Your task to perform on an android device: turn off notifications settings in the gmail app Image 0: 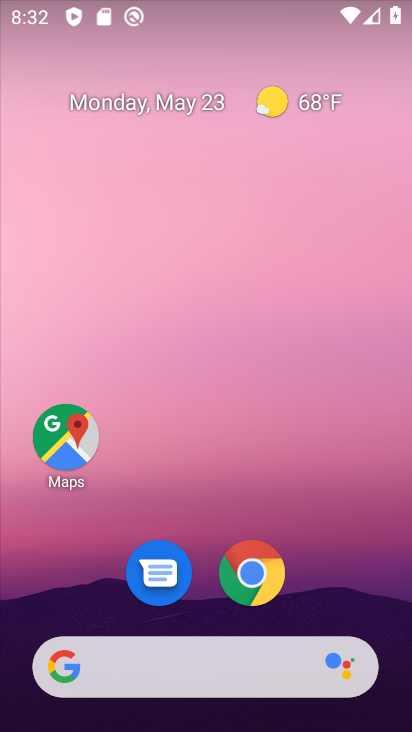
Step 0: drag from (207, 608) to (274, 165)
Your task to perform on an android device: turn off notifications settings in the gmail app Image 1: 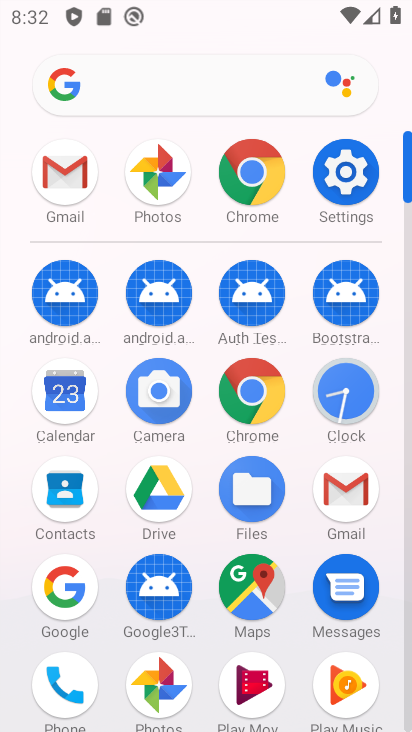
Step 1: click (341, 483)
Your task to perform on an android device: turn off notifications settings in the gmail app Image 2: 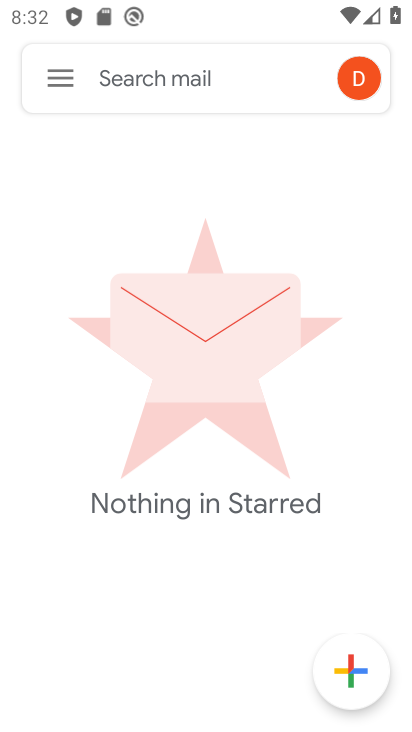
Step 2: click (60, 71)
Your task to perform on an android device: turn off notifications settings in the gmail app Image 3: 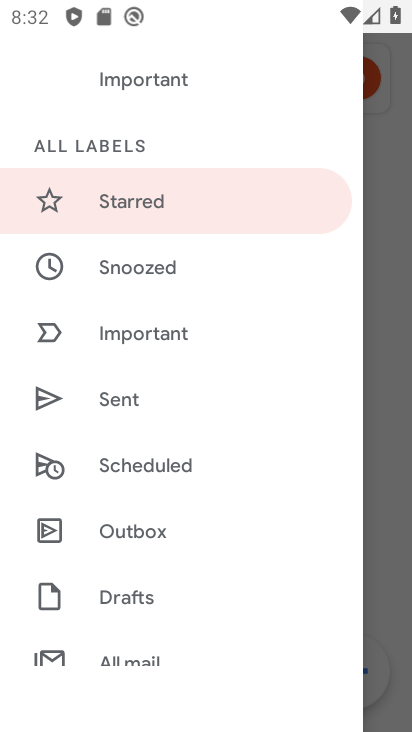
Step 3: drag from (159, 624) to (211, 117)
Your task to perform on an android device: turn off notifications settings in the gmail app Image 4: 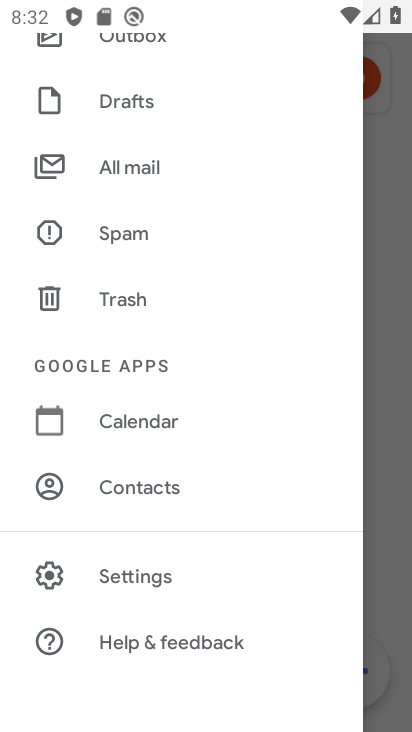
Step 4: click (153, 570)
Your task to perform on an android device: turn off notifications settings in the gmail app Image 5: 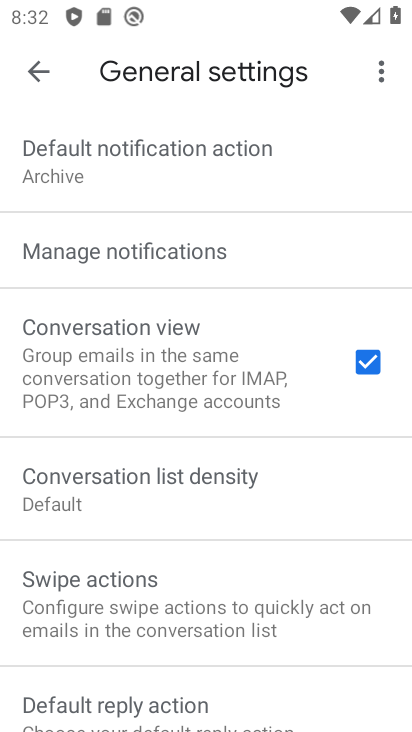
Step 5: click (232, 243)
Your task to perform on an android device: turn off notifications settings in the gmail app Image 6: 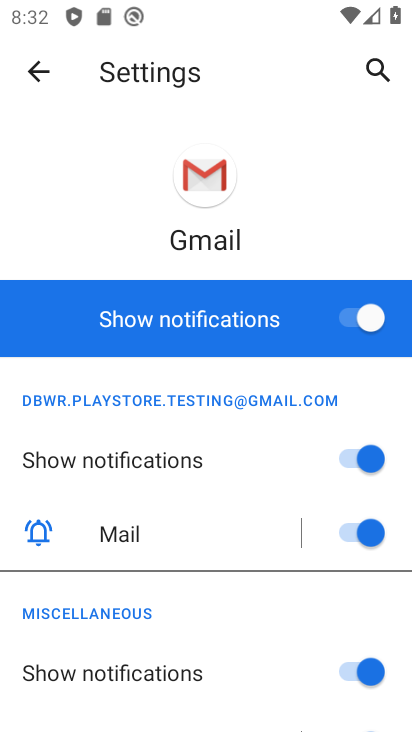
Step 6: click (354, 319)
Your task to perform on an android device: turn off notifications settings in the gmail app Image 7: 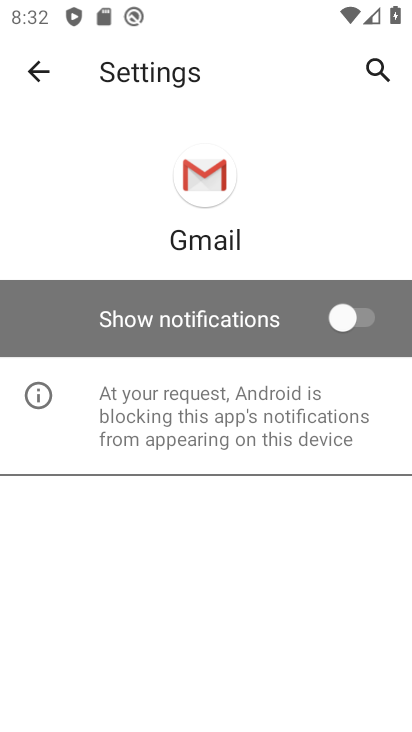
Step 7: task complete